Your task to perform on an android device: open device folders in google photos Image 0: 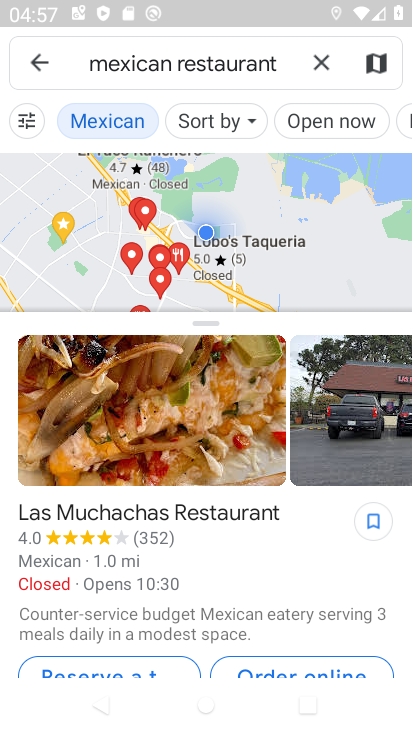
Step 0: press home button
Your task to perform on an android device: open device folders in google photos Image 1: 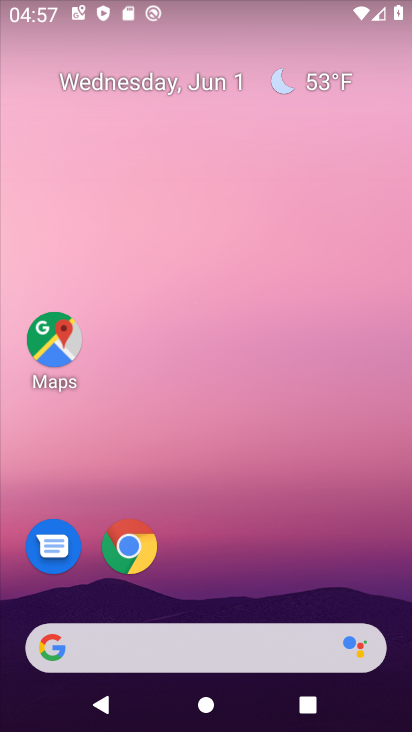
Step 1: drag from (273, 526) to (157, 99)
Your task to perform on an android device: open device folders in google photos Image 2: 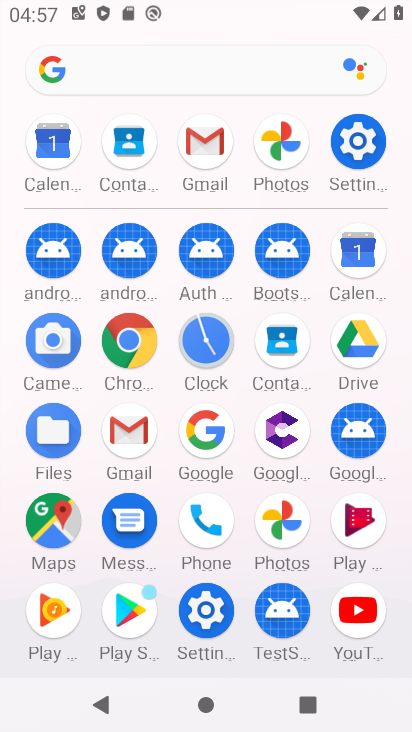
Step 2: click (269, 140)
Your task to perform on an android device: open device folders in google photos Image 3: 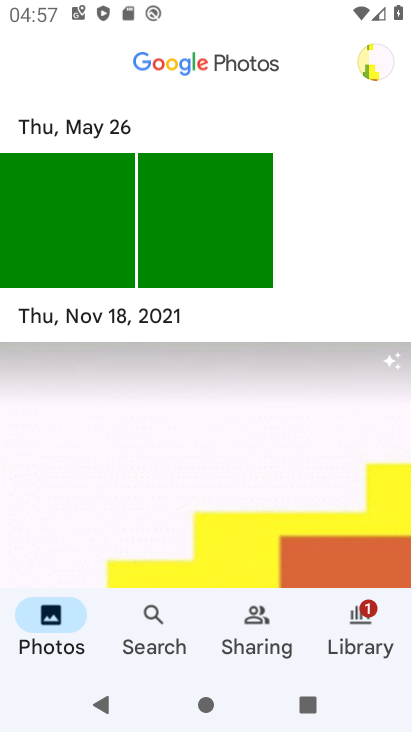
Step 3: click (156, 618)
Your task to perform on an android device: open device folders in google photos Image 4: 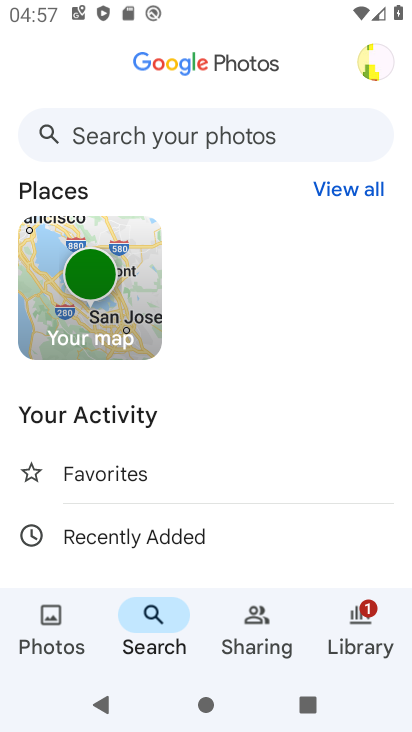
Step 4: click (166, 134)
Your task to perform on an android device: open device folders in google photos Image 5: 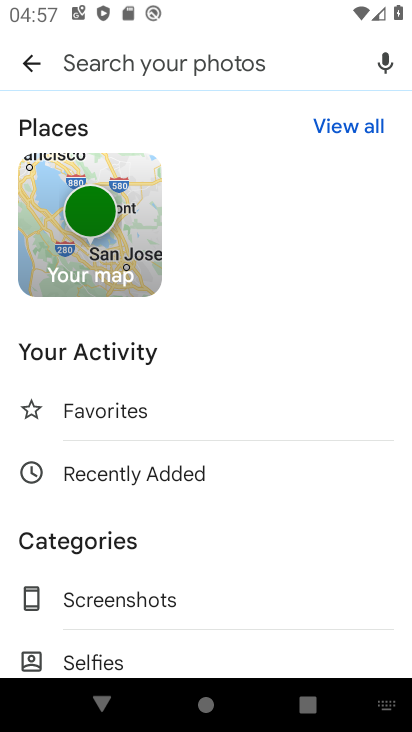
Step 5: type "device"
Your task to perform on an android device: open device folders in google photos Image 6: 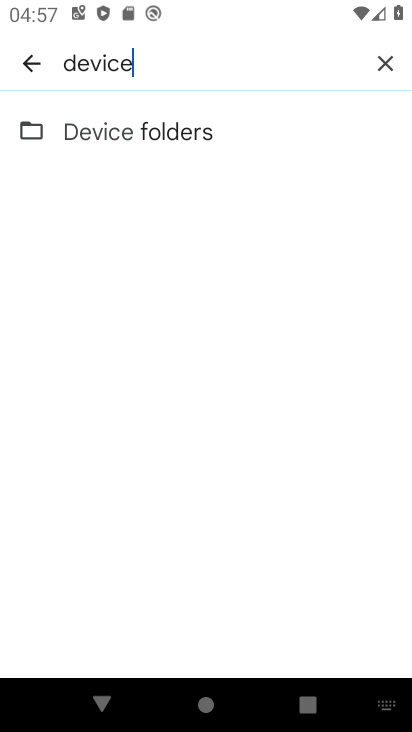
Step 6: click (169, 128)
Your task to perform on an android device: open device folders in google photos Image 7: 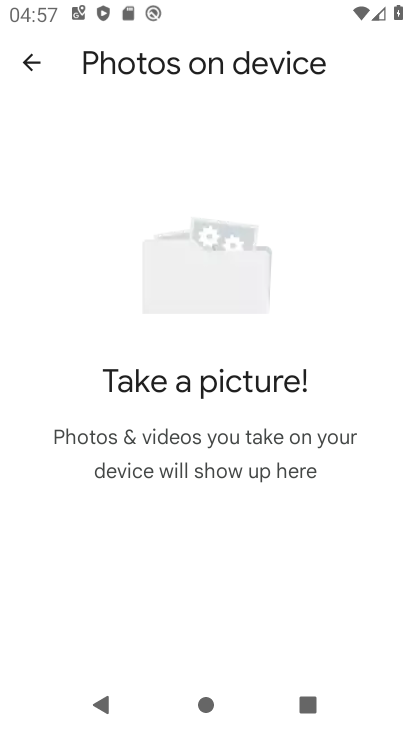
Step 7: task complete